Your task to perform on an android device: toggle wifi Image 0: 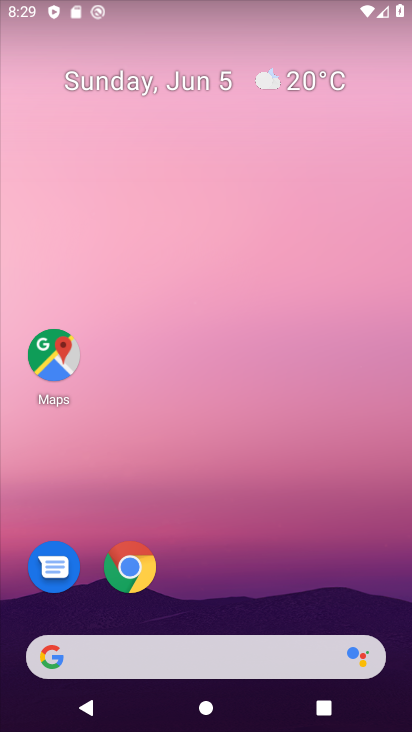
Step 0: drag from (286, 569) to (191, 288)
Your task to perform on an android device: toggle wifi Image 1: 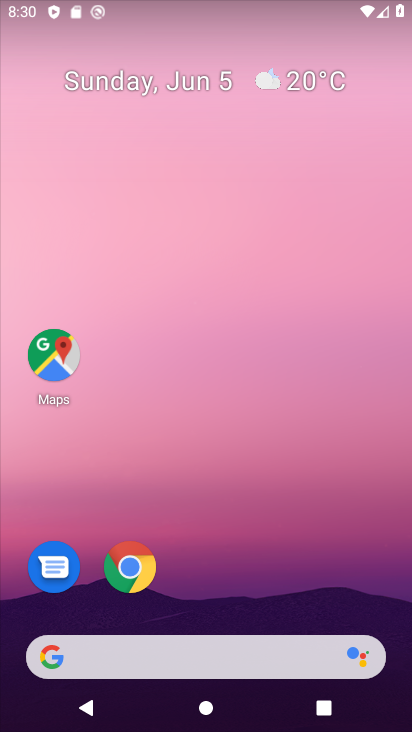
Step 1: drag from (289, 546) to (183, 76)
Your task to perform on an android device: toggle wifi Image 2: 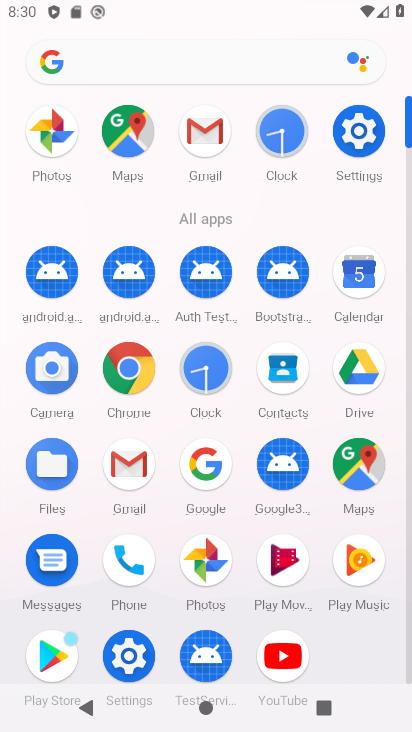
Step 2: click (358, 133)
Your task to perform on an android device: toggle wifi Image 3: 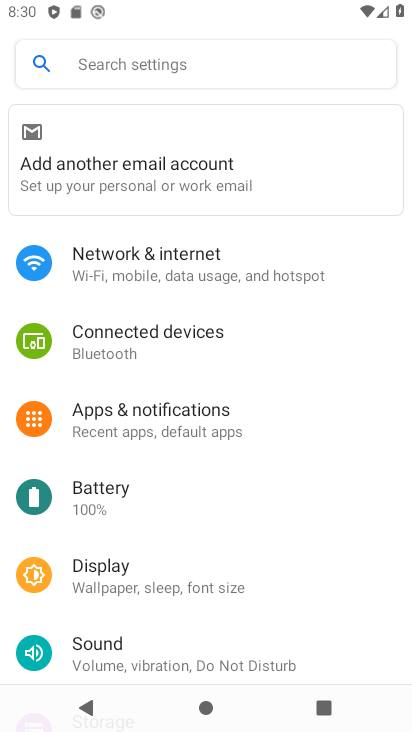
Step 3: click (190, 273)
Your task to perform on an android device: toggle wifi Image 4: 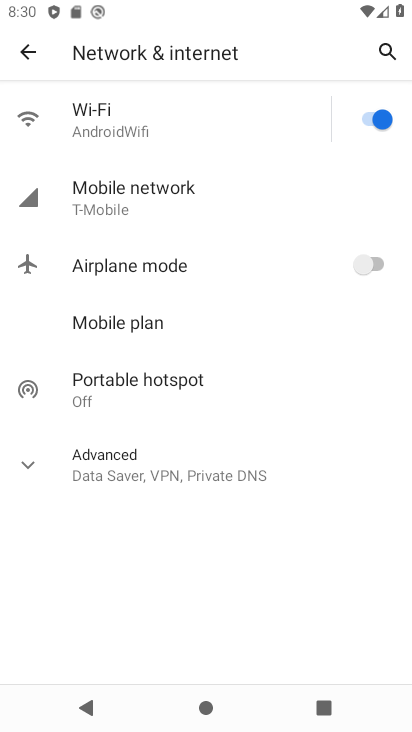
Step 4: click (122, 131)
Your task to perform on an android device: toggle wifi Image 5: 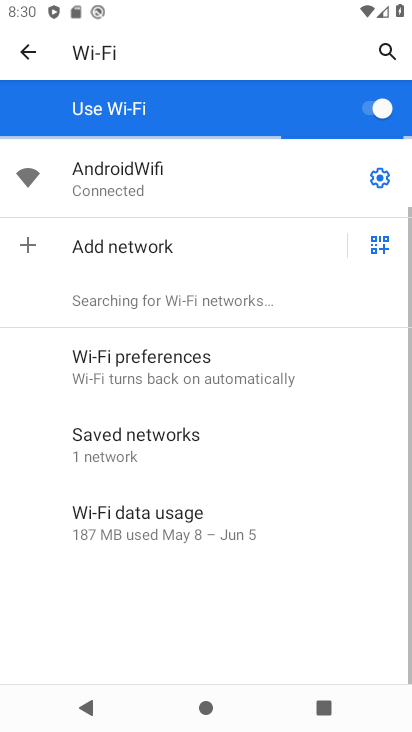
Step 5: click (364, 112)
Your task to perform on an android device: toggle wifi Image 6: 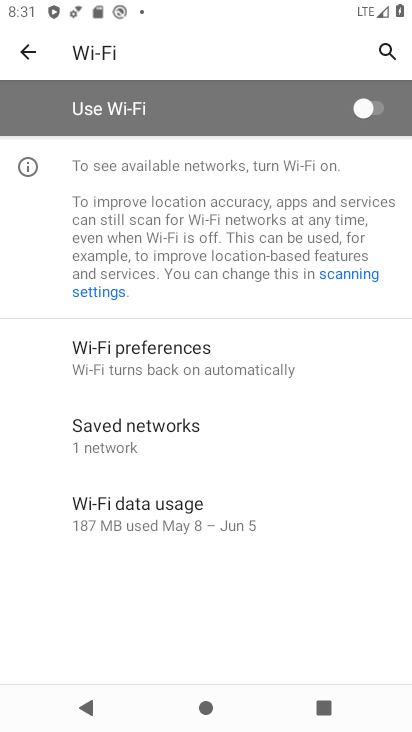
Step 6: task complete